Your task to perform on an android device: choose inbox layout in the gmail app Image 0: 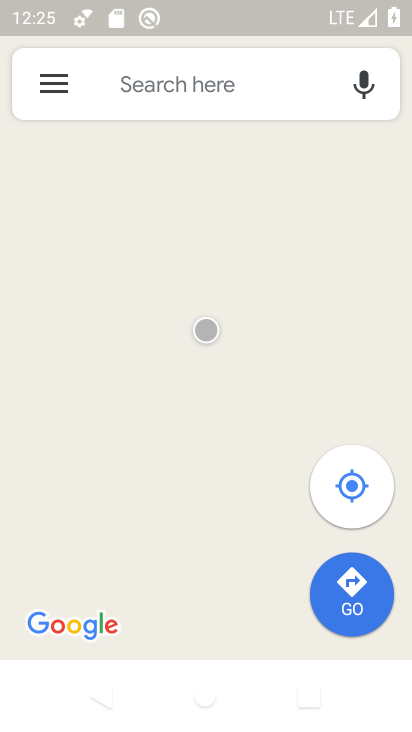
Step 0: press home button
Your task to perform on an android device: choose inbox layout in the gmail app Image 1: 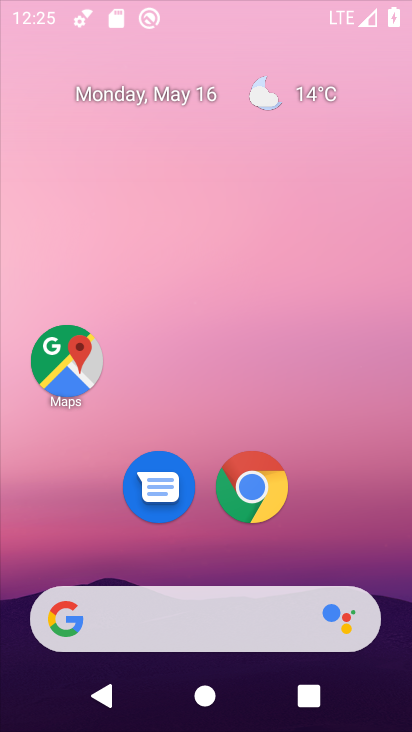
Step 1: drag from (132, 663) to (278, 19)
Your task to perform on an android device: choose inbox layout in the gmail app Image 2: 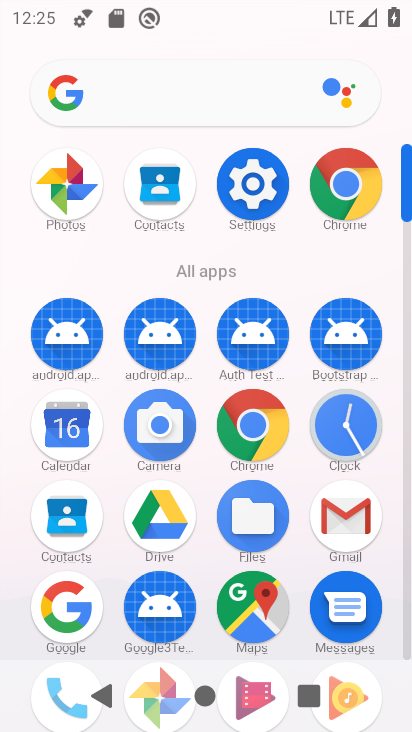
Step 2: click (356, 521)
Your task to perform on an android device: choose inbox layout in the gmail app Image 3: 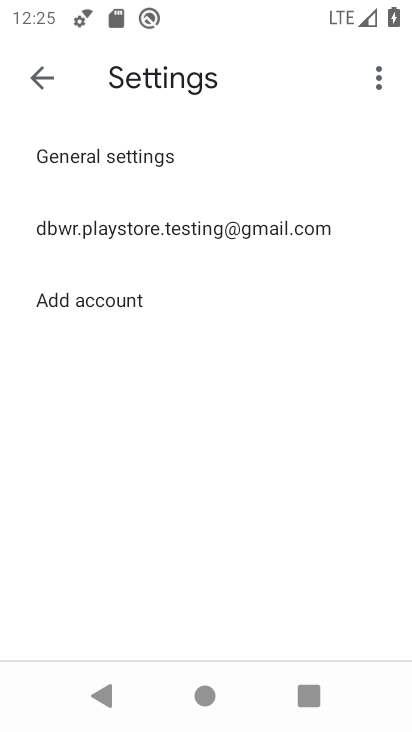
Step 3: click (198, 217)
Your task to perform on an android device: choose inbox layout in the gmail app Image 4: 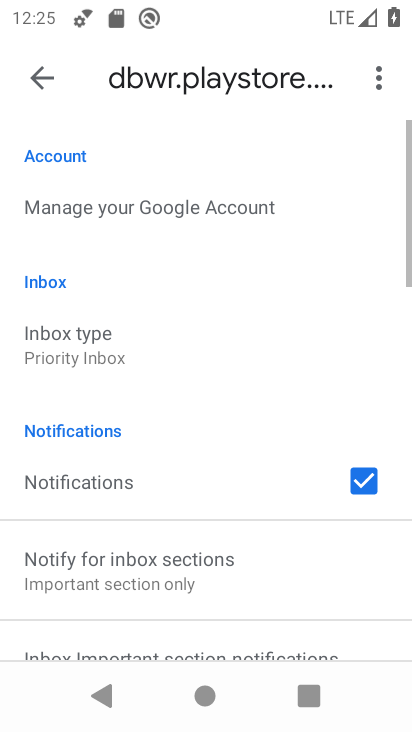
Step 4: drag from (164, 614) to (306, 117)
Your task to perform on an android device: choose inbox layout in the gmail app Image 5: 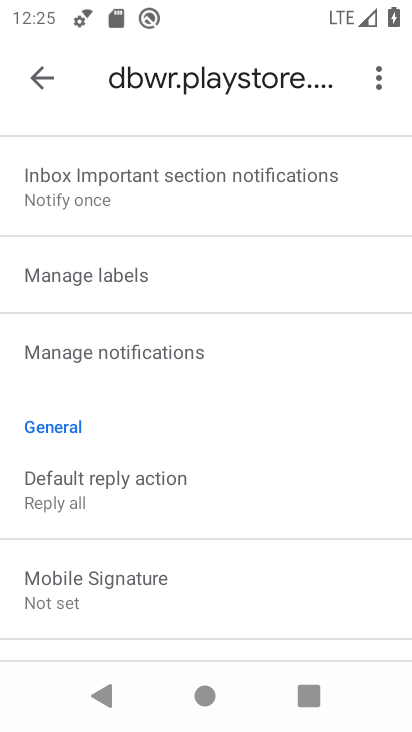
Step 5: drag from (253, 532) to (234, 624)
Your task to perform on an android device: choose inbox layout in the gmail app Image 6: 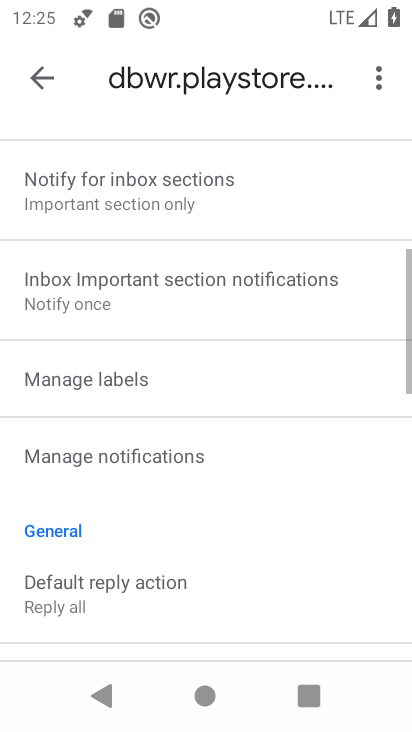
Step 6: drag from (240, 365) to (224, 558)
Your task to perform on an android device: choose inbox layout in the gmail app Image 7: 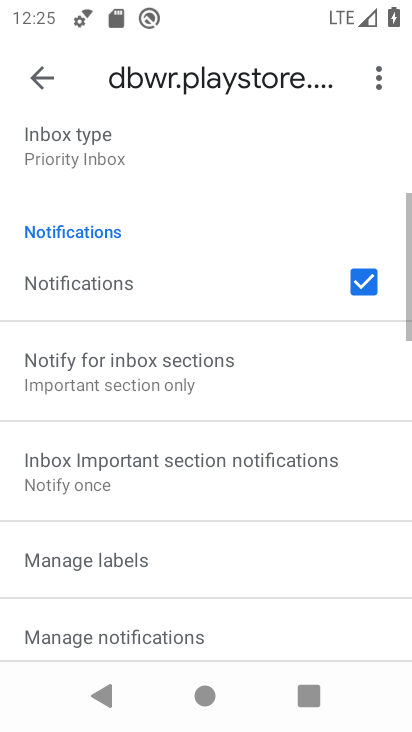
Step 7: drag from (203, 308) to (184, 492)
Your task to perform on an android device: choose inbox layout in the gmail app Image 8: 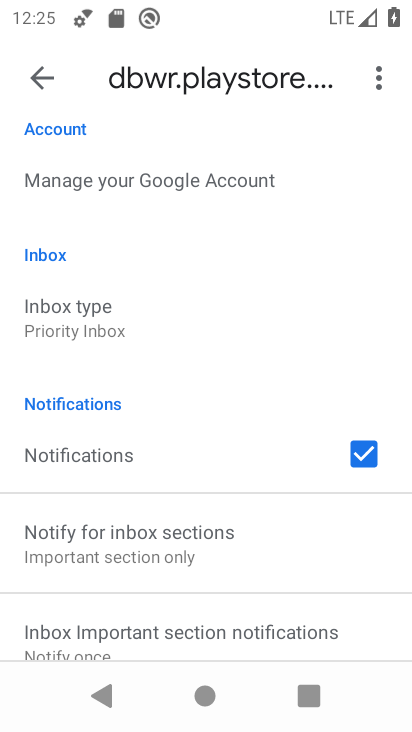
Step 8: click (137, 313)
Your task to perform on an android device: choose inbox layout in the gmail app Image 9: 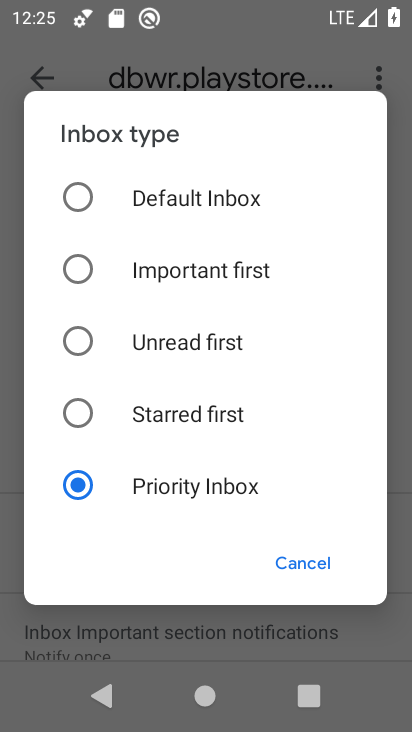
Step 9: click (193, 349)
Your task to perform on an android device: choose inbox layout in the gmail app Image 10: 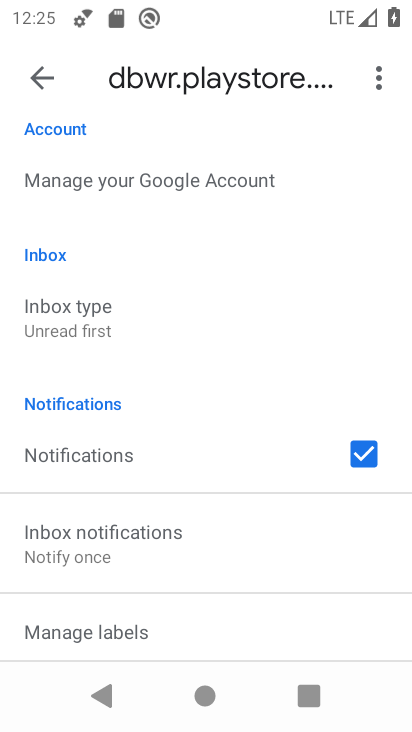
Step 10: task complete